Your task to perform on an android device: open device folders in google photos Image 0: 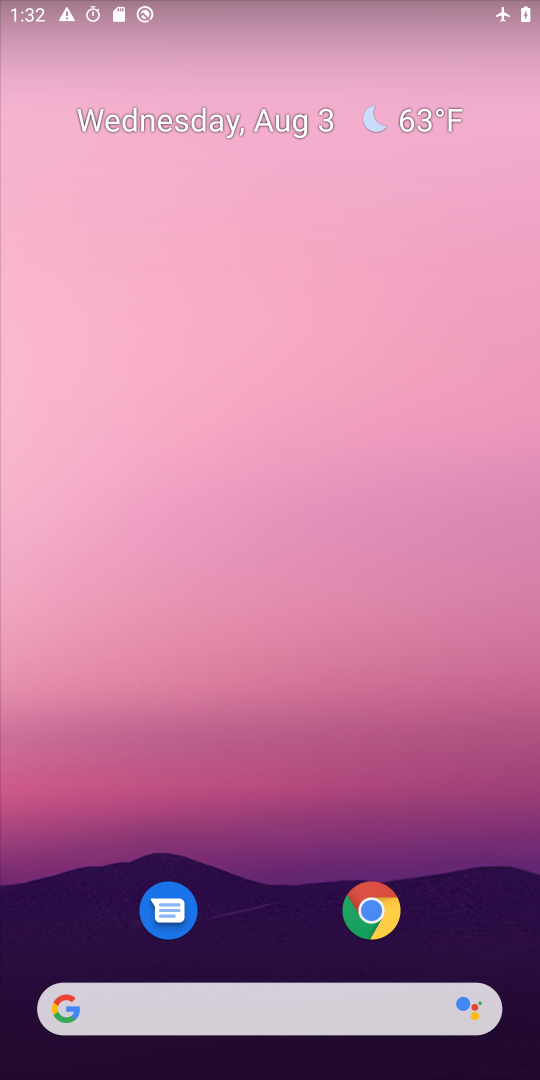
Step 0: drag from (291, 787) to (341, 18)
Your task to perform on an android device: open device folders in google photos Image 1: 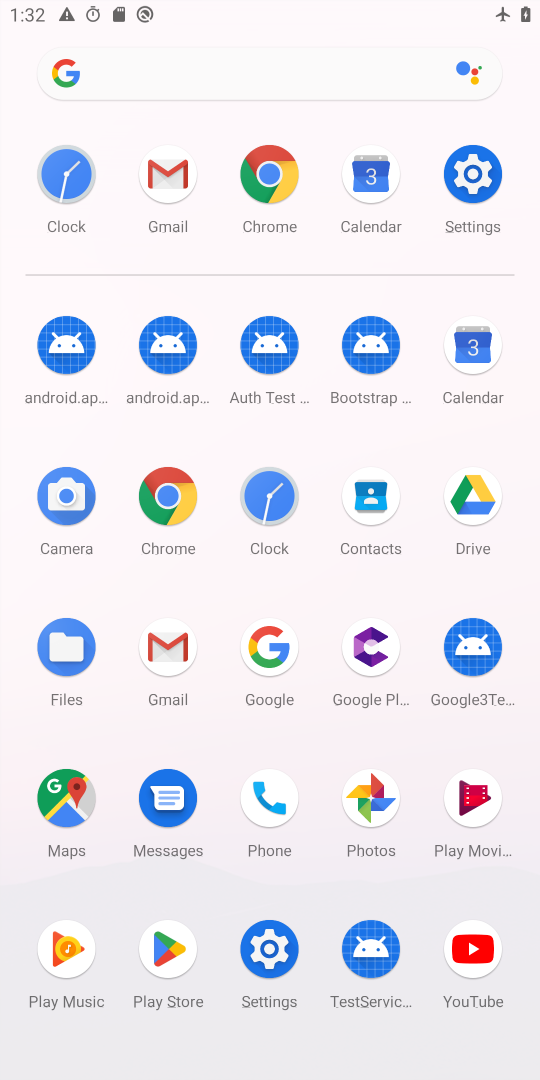
Step 1: click (356, 791)
Your task to perform on an android device: open device folders in google photos Image 2: 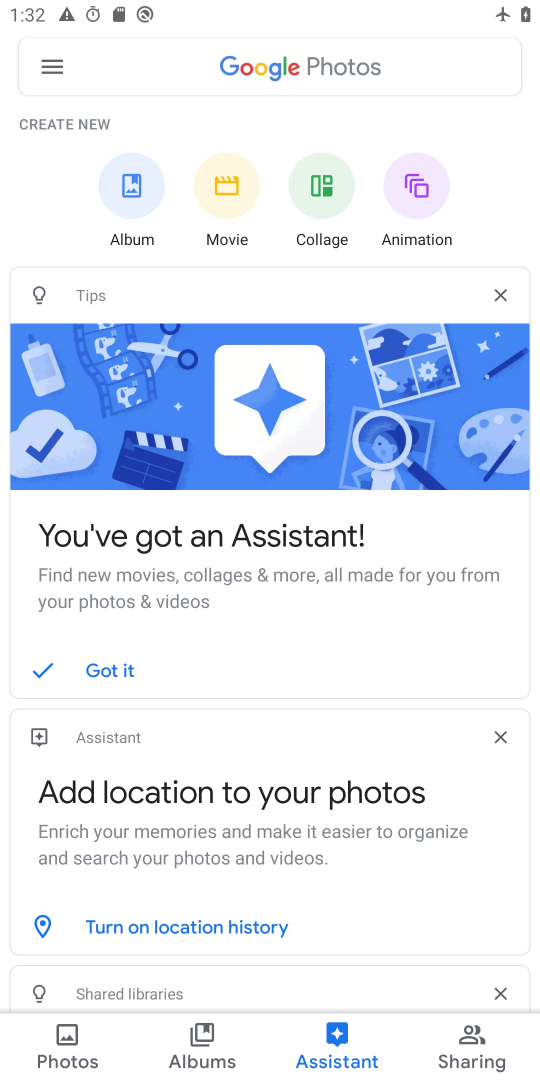
Step 2: click (46, 57)
Your task to perform on an android device: open device folders in google photos Image 3: 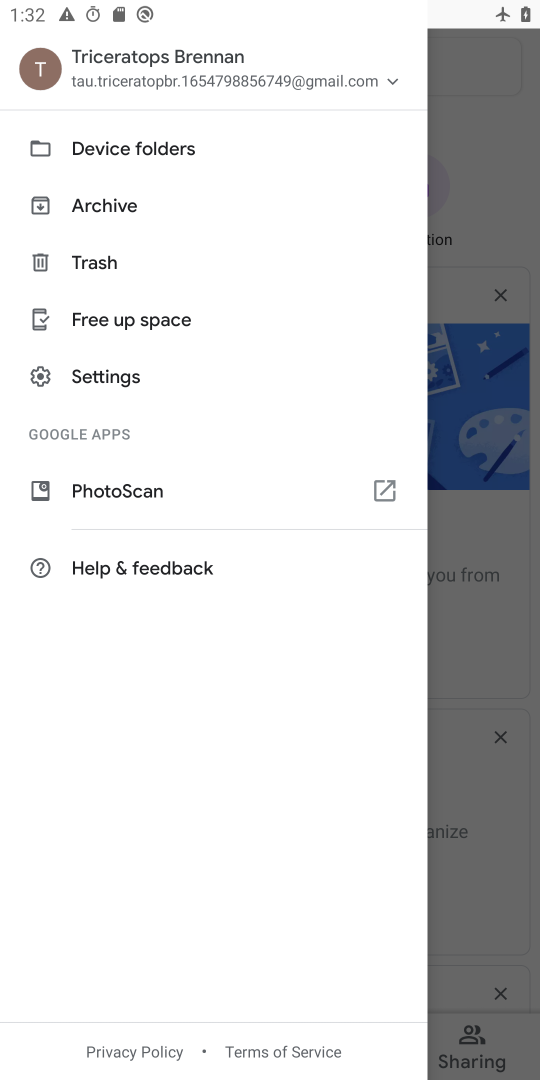
Step 3: click (132, 146)
Your task to perform on an android device: open device folders in google photos Image 4: 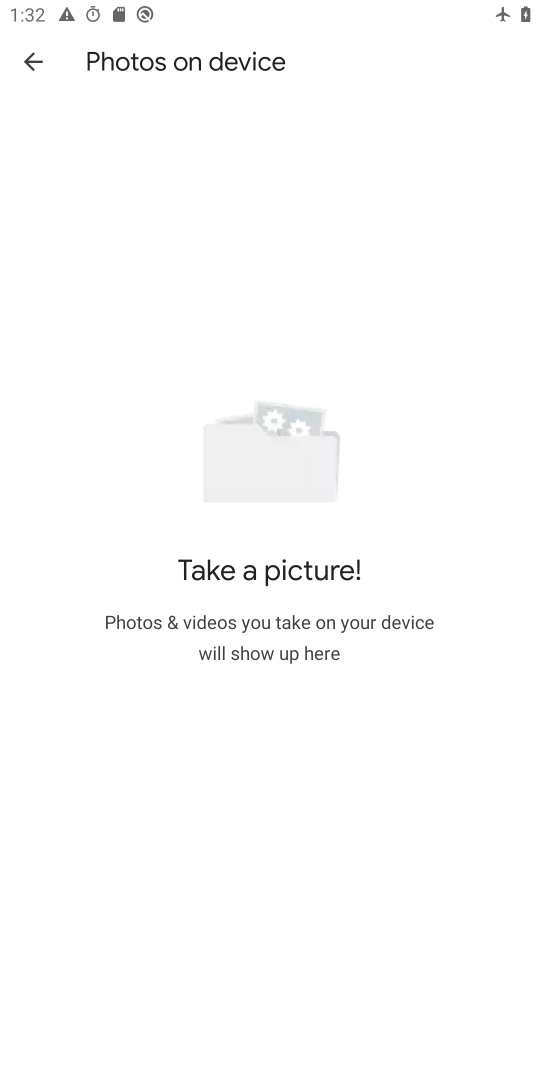
Step 4: task complete